Your task to perform on an android device: Open internet settings Image 0: 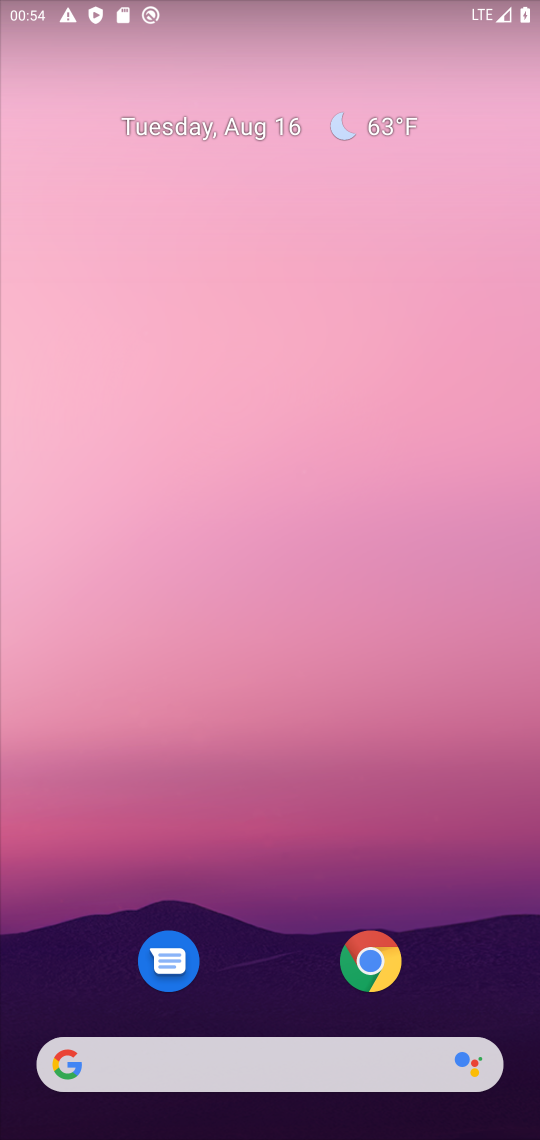
Step 0: press home button
Your task to perform on an android device: Open internet settings Image 1: 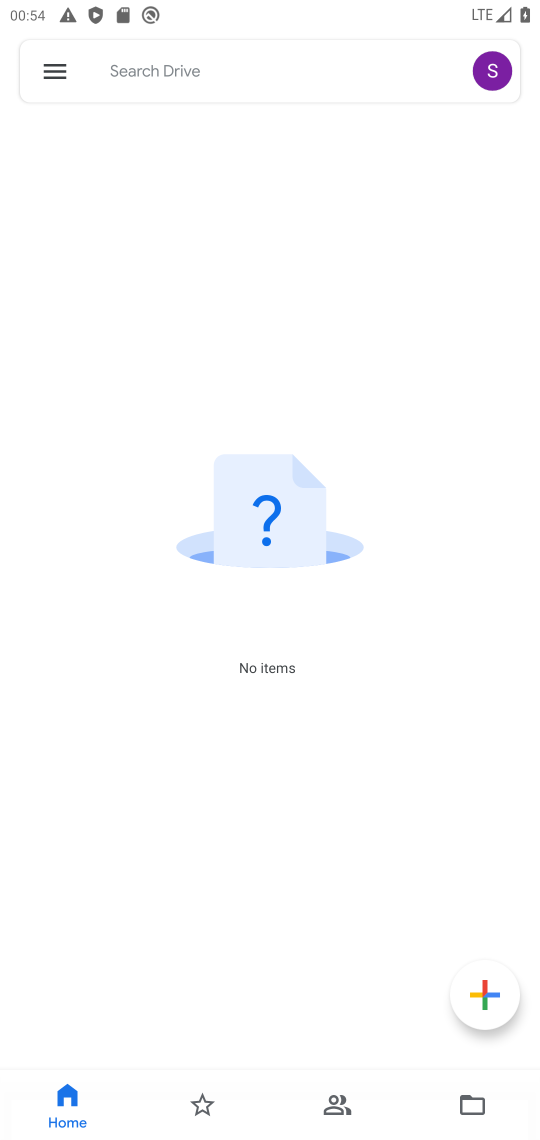
Step 1: click (300, 62)
Your task to perform on an android device: Open internet settings Image 2: 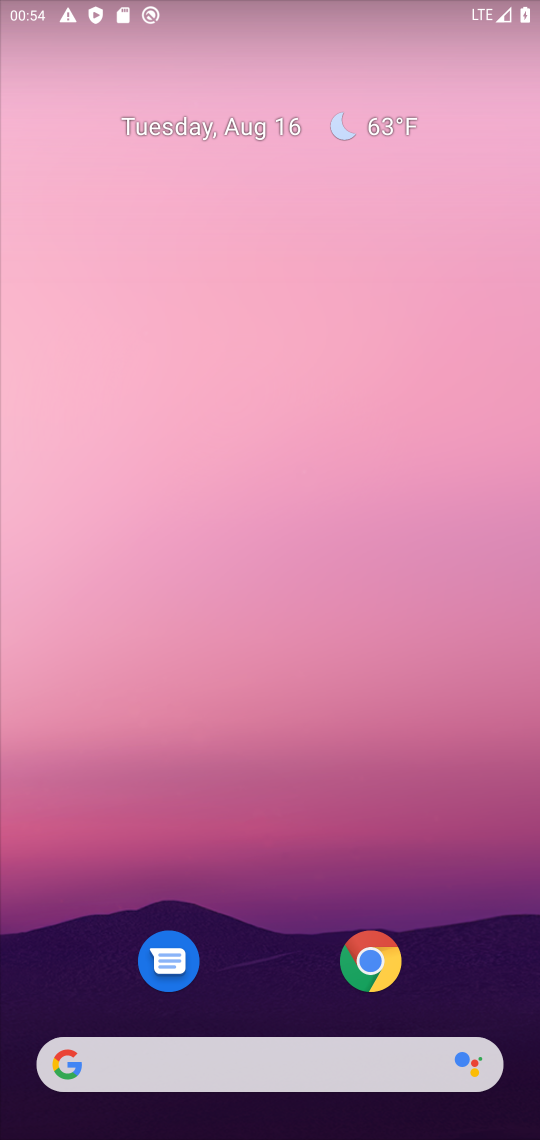
Step 2: press home button
Your task to perform on an android device: Open internet settings Image 3: 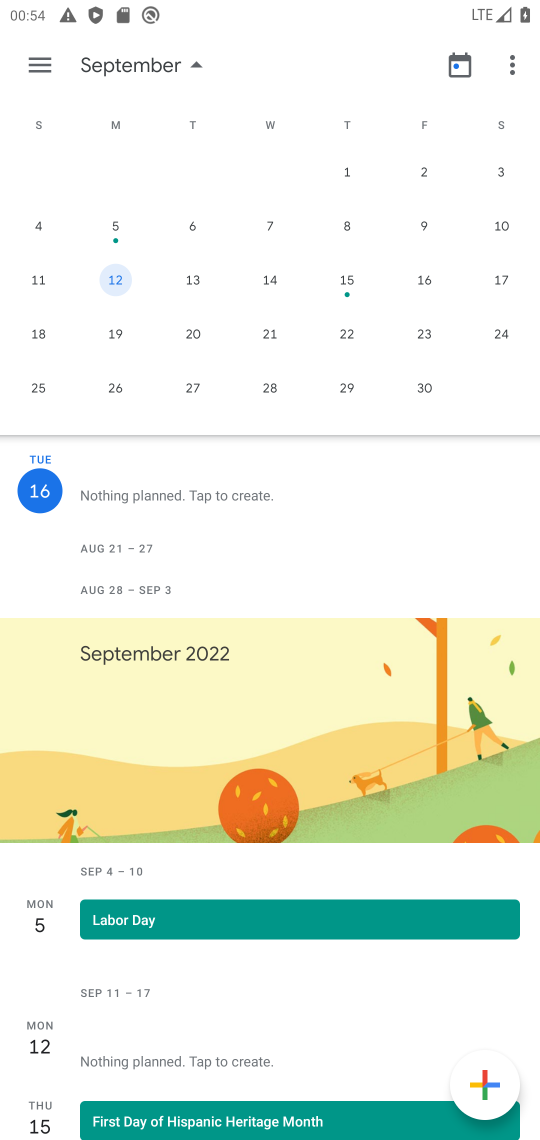
Step 3: click (261, 27)
Your task to perform on an android device: Open internet settings Image 4: 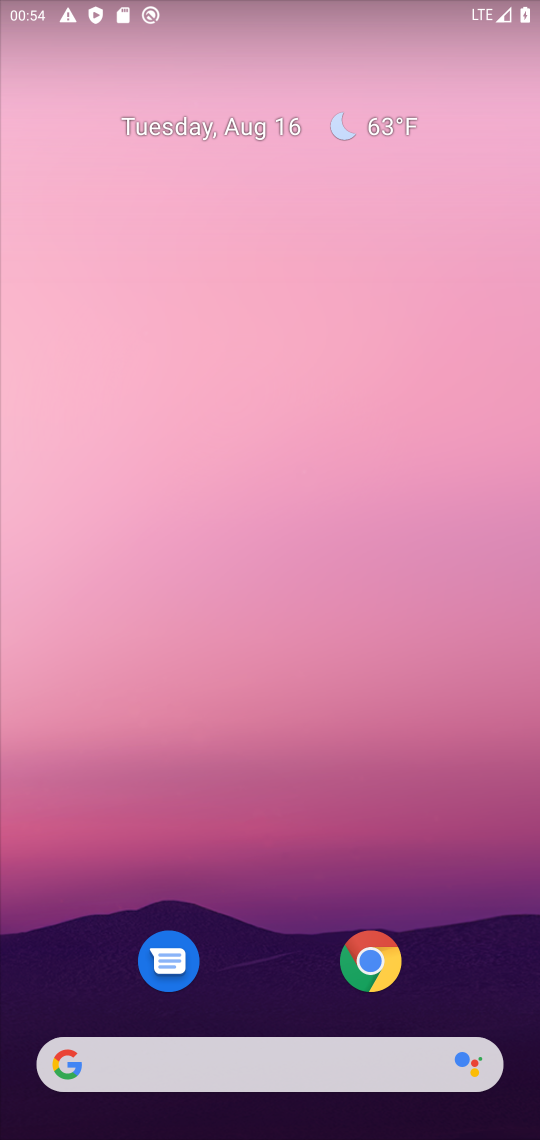
Step 4: drag from (356, 618) to (436, 95)
Your task to perform on an android device: Open internet settings Image 5: 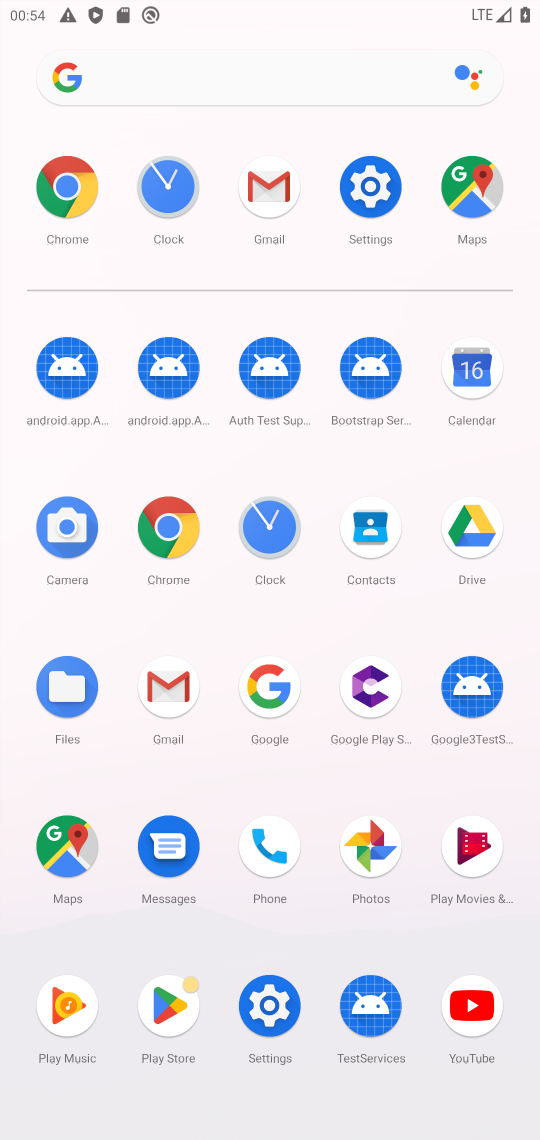
Step 5: click (331, 170)
Your task to perform on an android device: Open internet settings Image 6: 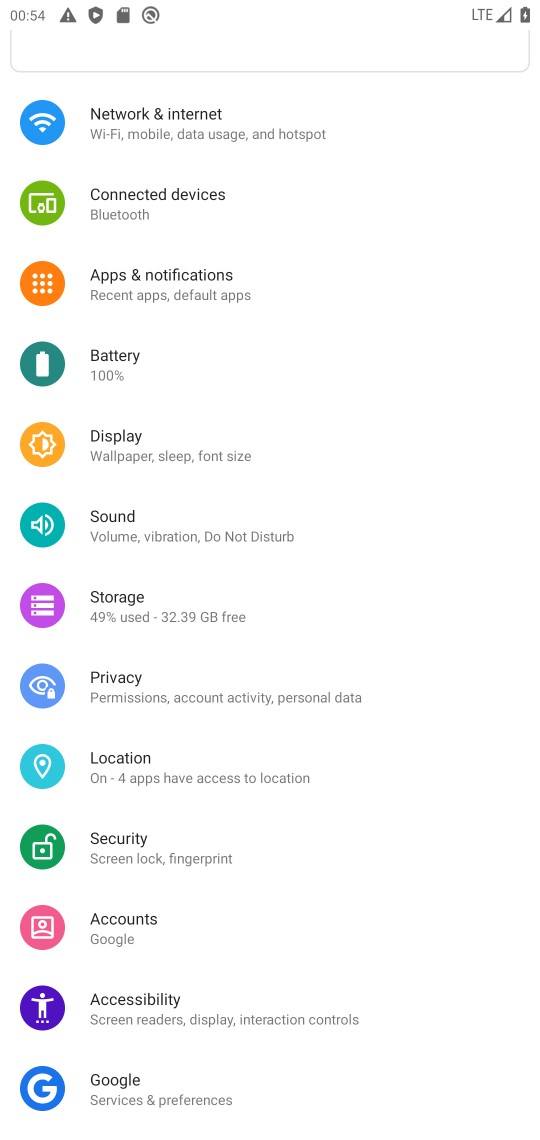
Step 6: click (234, 134)
Your task to perform on an android device: Open internet settings Image 7: 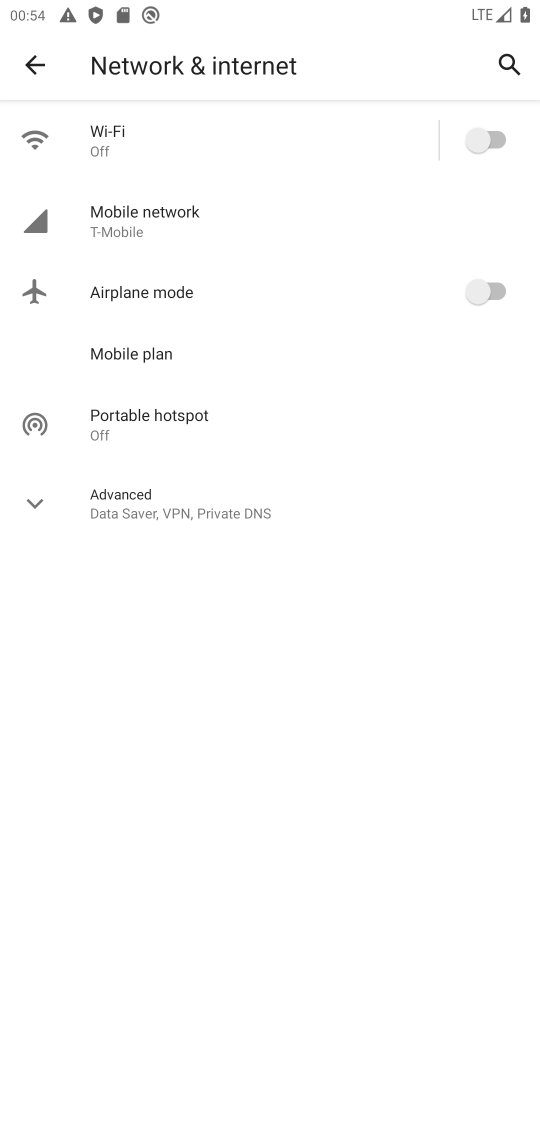
Step 7: task complete